Your task to perform on an android device: turn on sleep mode Image 0: 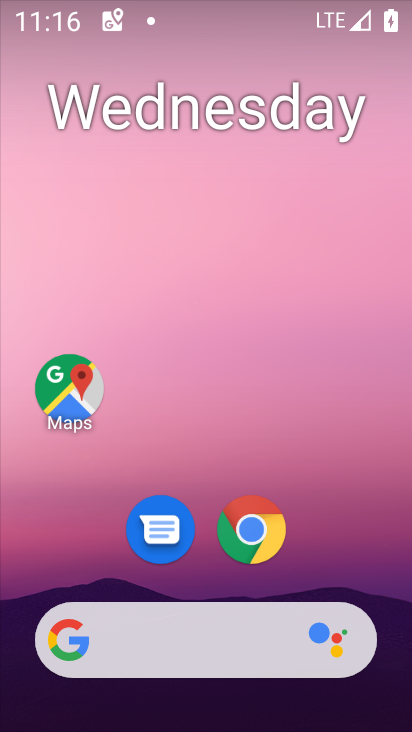
Step 0: drag from (387, 627) to (343, 90)
Your task to perform on an android device: turn on sleep mode Image 1: 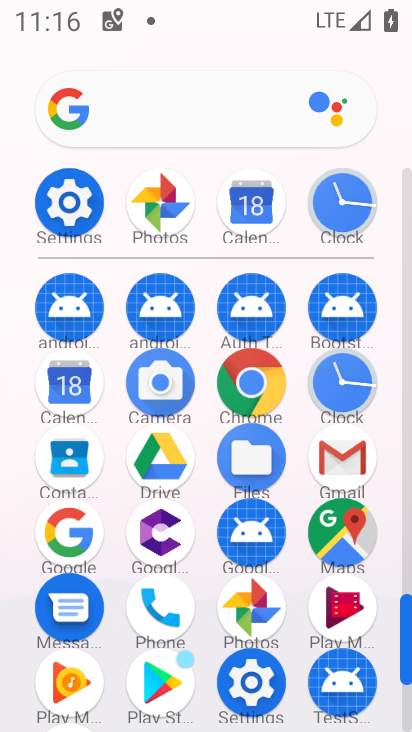
Step 1: click (408, 705)
Your task to perform on an android device: turn on sleep mode Image 2: 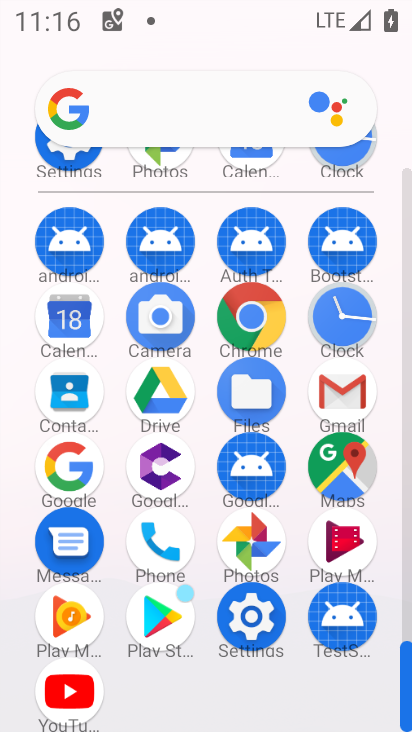
Step 2: click (250, 617)
Your task to perform on an android device: turn on sleep mode Image 3: 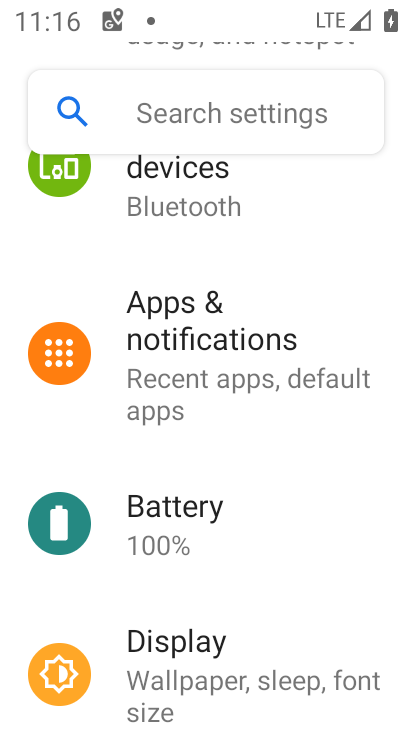
Step 3: drag from (372, 233) to (321, 110)
Your task to perform on an android device: turn on sleep mode Image 4: 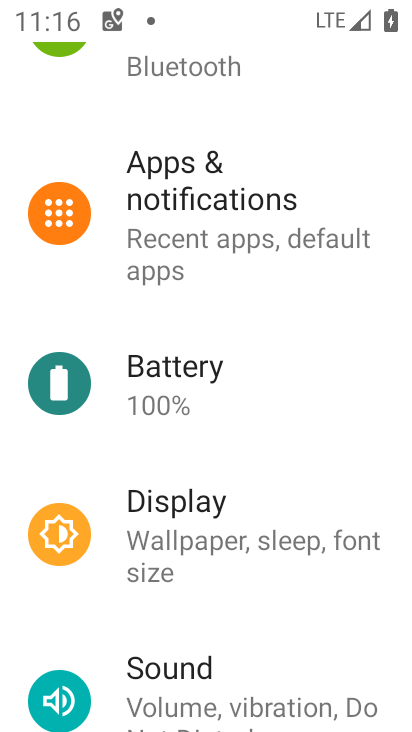
Step 4: click (189, 537)
Your task to perform on an android device: turn on sleep mode Image 5: 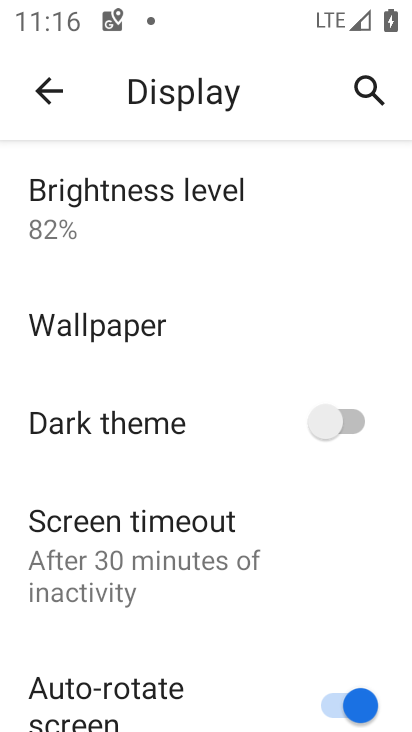
Step 5: drag from (262, 653) to (250, 237)
Your task to perform on an android device: turn on sleep mode Image 6: 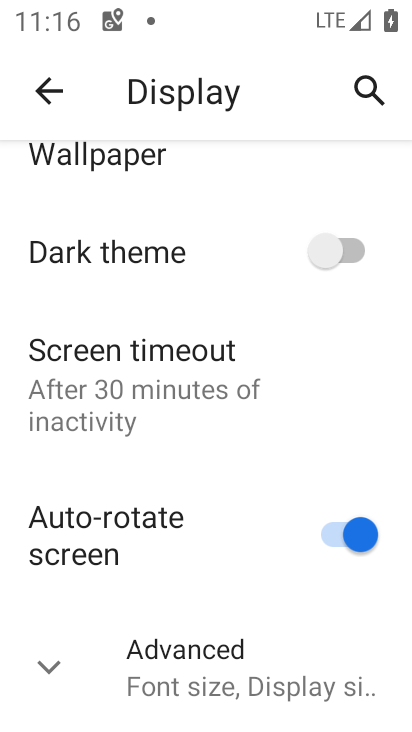
Step 6: click (51, 666)
Your task to perform on an android device: turn on sleep mode Image 7: 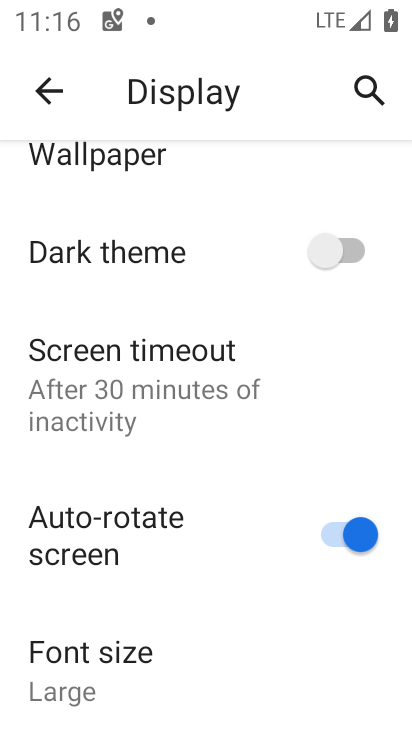
Step 7: task complete